Your task to perform on an android device: Show me the alarms in the clock app Image 0: 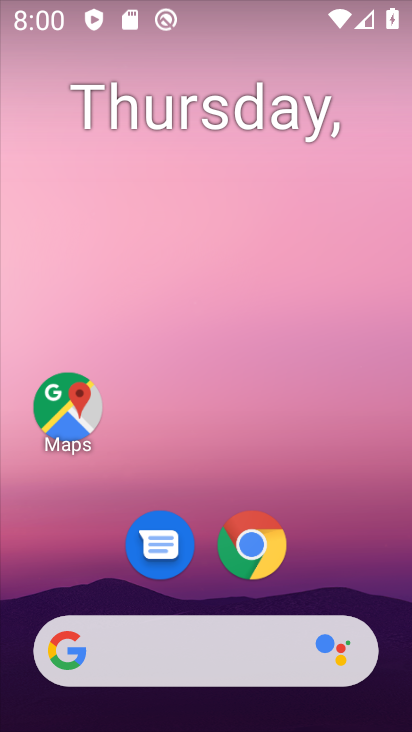
Step 0: drag from (303, 553) to (325, 238)
Your task to perform on an android device: Show me the alarms in the clock app Image 1: 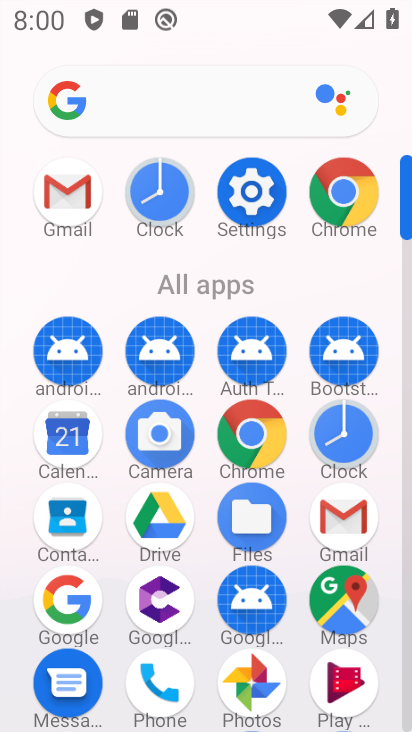
Step 1: click (333, 434)
Your task to perform on an android device: Show me the alarms in the clock app Image 2: 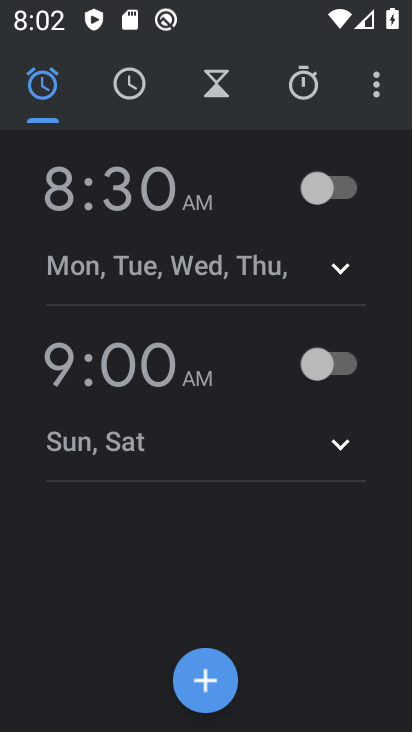
Step 2: task complete